Your task to perform on an android device: find snoozed emails in the gmail app Image 0: 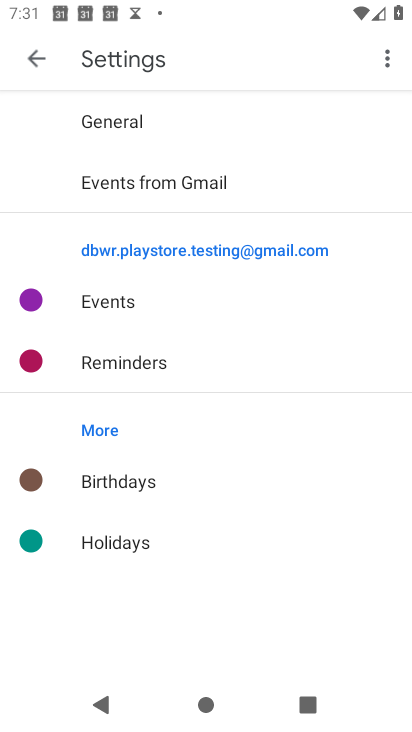
Step 0: press home button
Your task to perform on an android device: find snoozed emails in the gmail app Image 1: 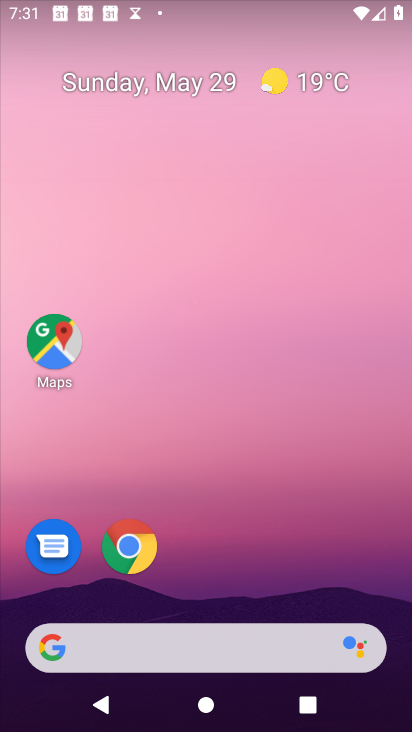
Step 1: drag from (207, 582) to (197, 183)
Your task to perform on an android device: find snoozed emails in the gmail app Image 2: 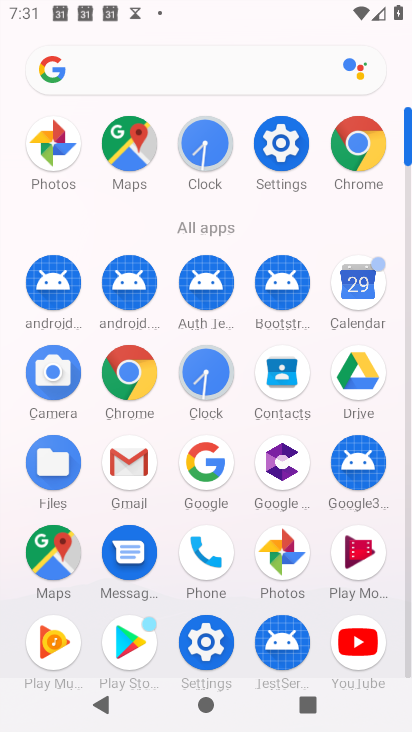
Step 2: click (129, 469)
Your task to perform on an android device: find snoozed emails in the gmail app Image 3: 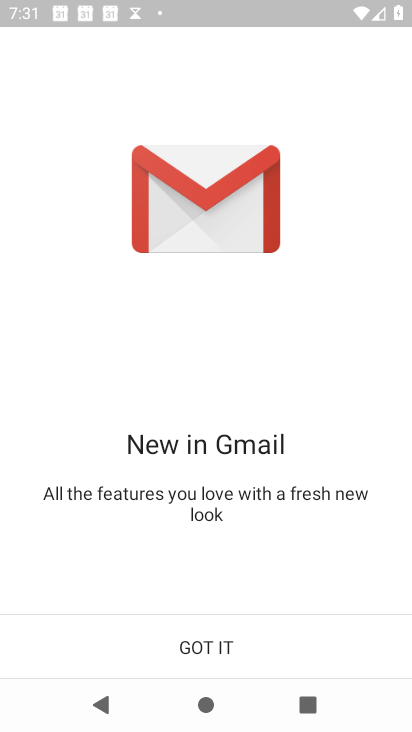
Step 3: click (212, 646)
Your task to perform on an android device: find snoozed emails in the gmail app Image 4: 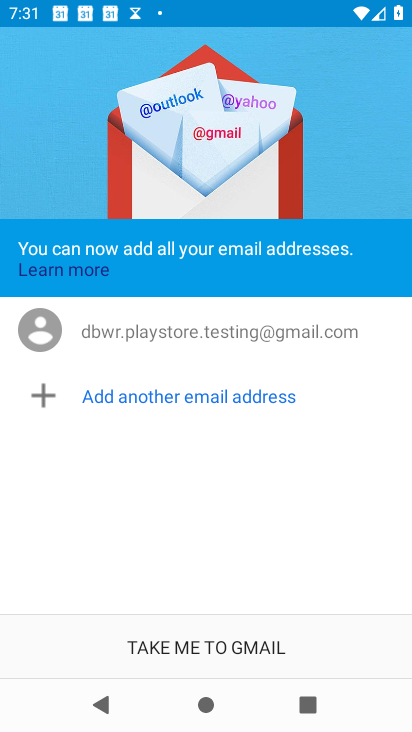
Step 4: click (212, 646)
Your task to perform on an android device: find snoozed emails in the gmail app Image 5: 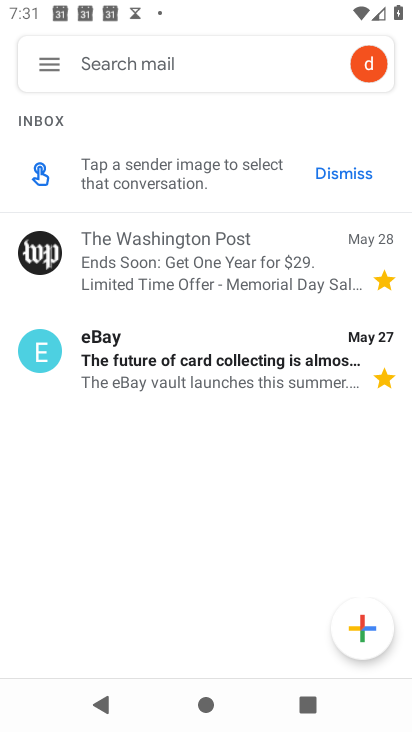
Step 5: click (55, 59)
Your task to perform on an android device: find snoozed emails in the gmail app Image 6: 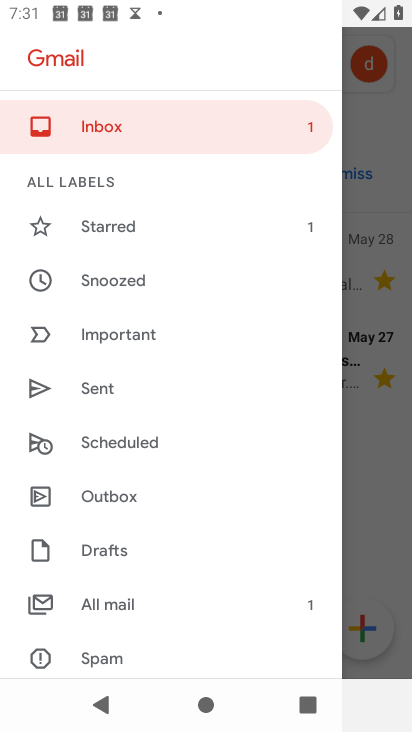
Step 6: click (111, 293)
Your task to perform on an android device: find snoozed emails in the gmail app Image 7: 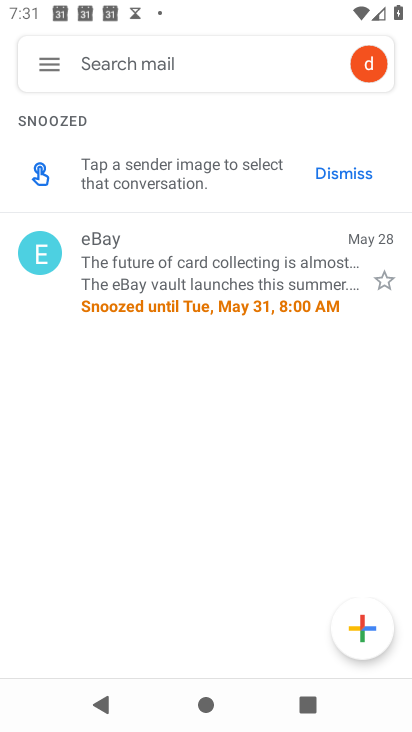
Step 7: task complete